Your task to perform on an android device: Clear the cart on walmart. Image 0: 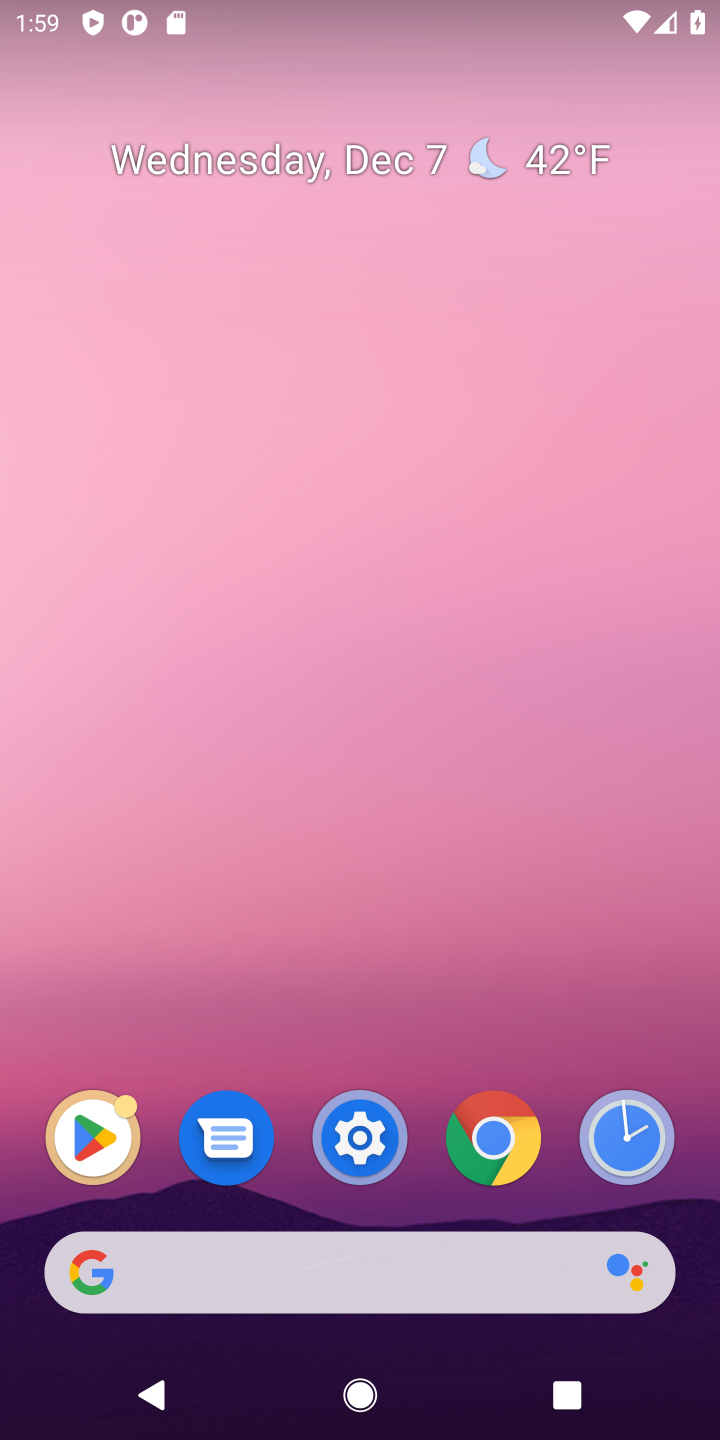
Step 0: click (501, 1265)
Your task to perform on an android device: Clear the cart on walmart. Image 1: 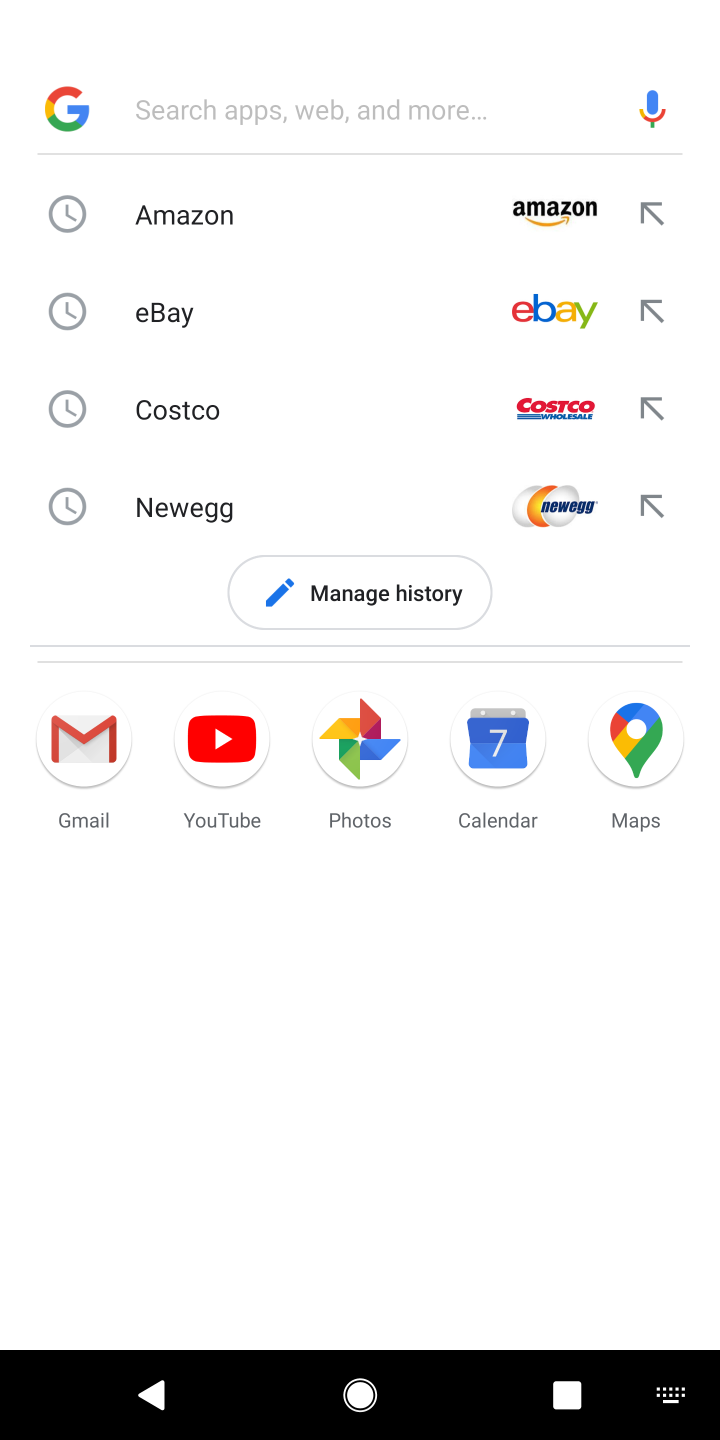
Step 1: type "walmart"
Your task to perform on an android device: Clear the cart on walmart. Image 2: 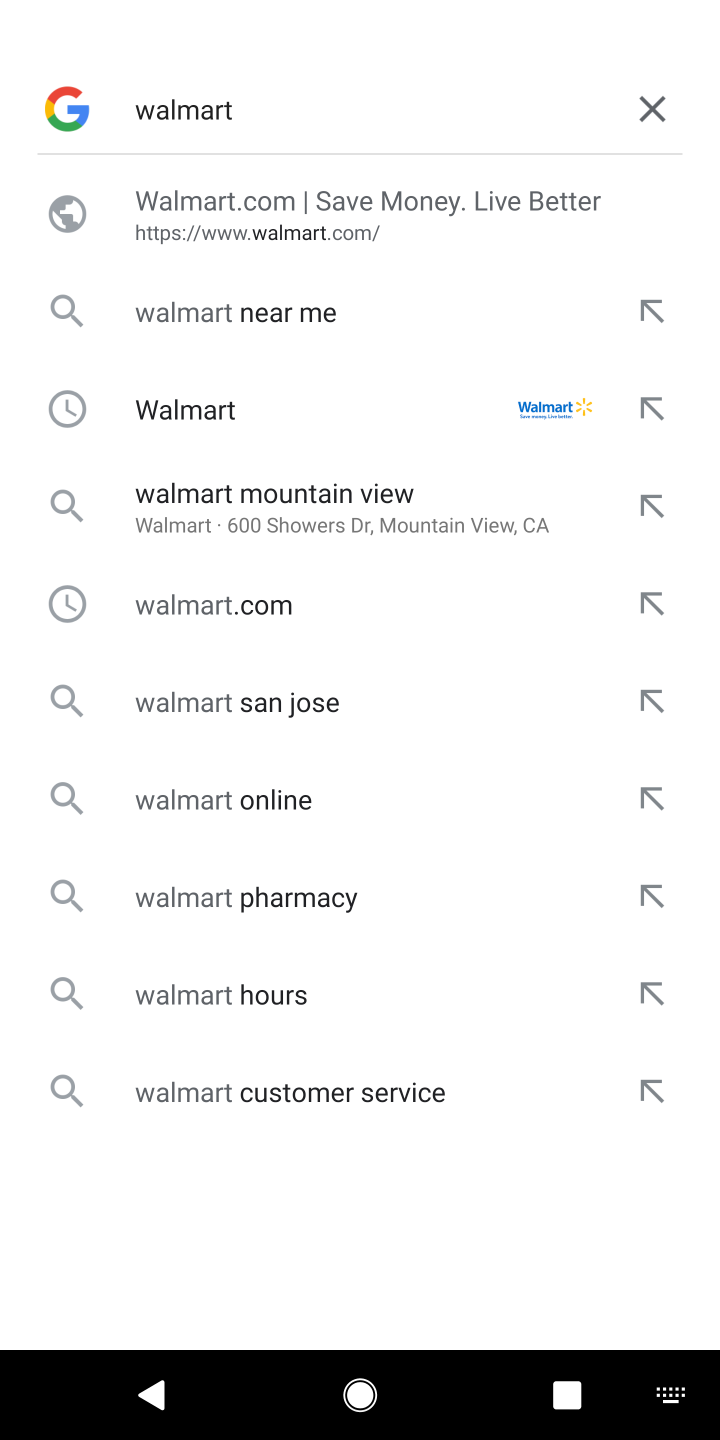
Step 2: click (178, 248)
Your task to perform on an android device: Clear the cart on walmart. Image 3: 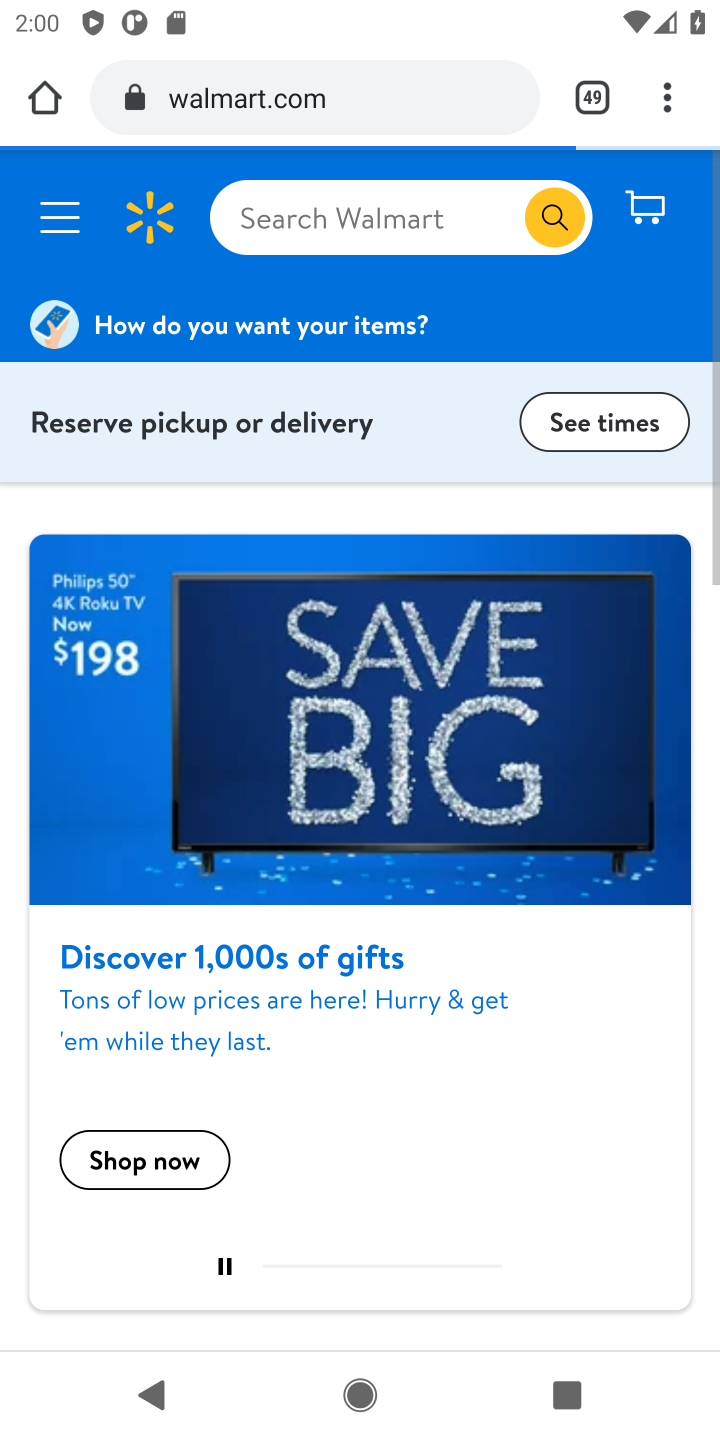
Step 3: click (381, 203)
Your task to perform on an android device: Clear the cart on walmart. Image 4: 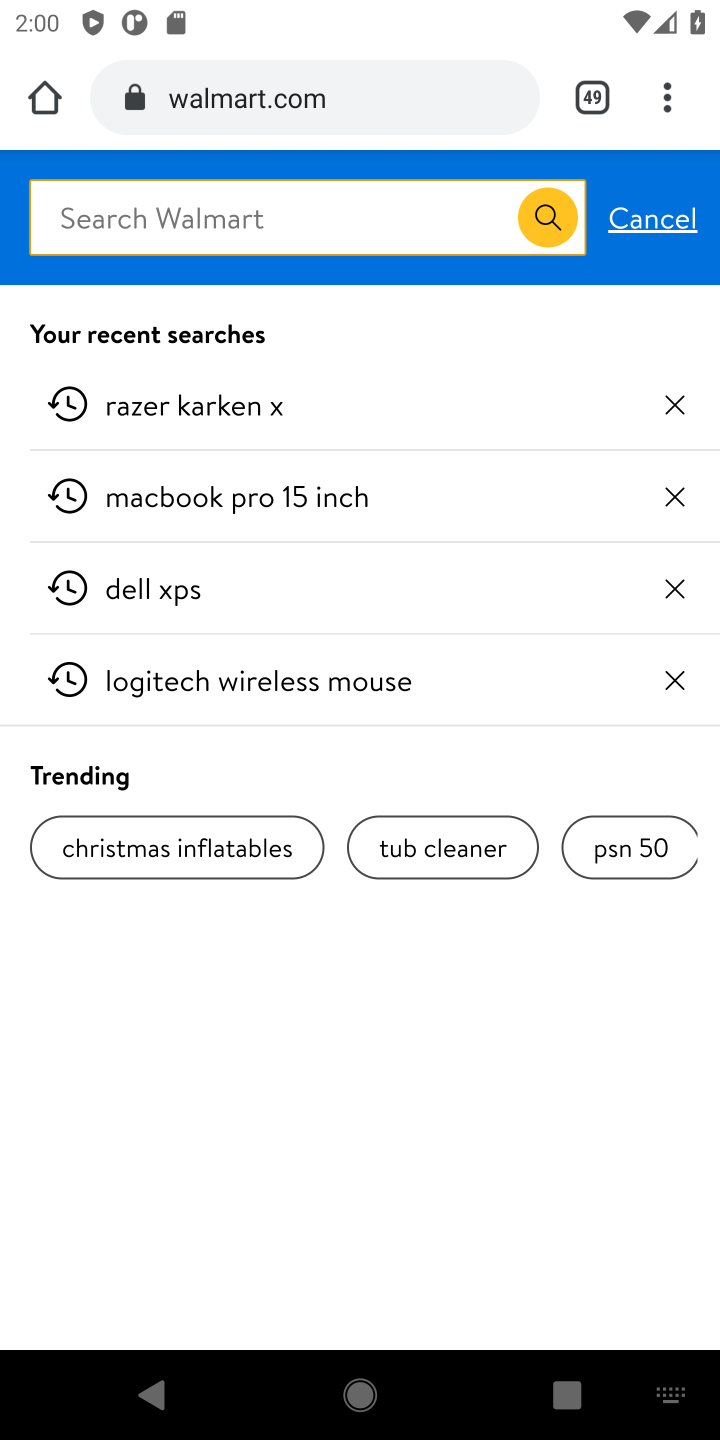
Step 4: click (642, 255)
Your task to perform on an android device: Clear the cart on walmart. Image 5: 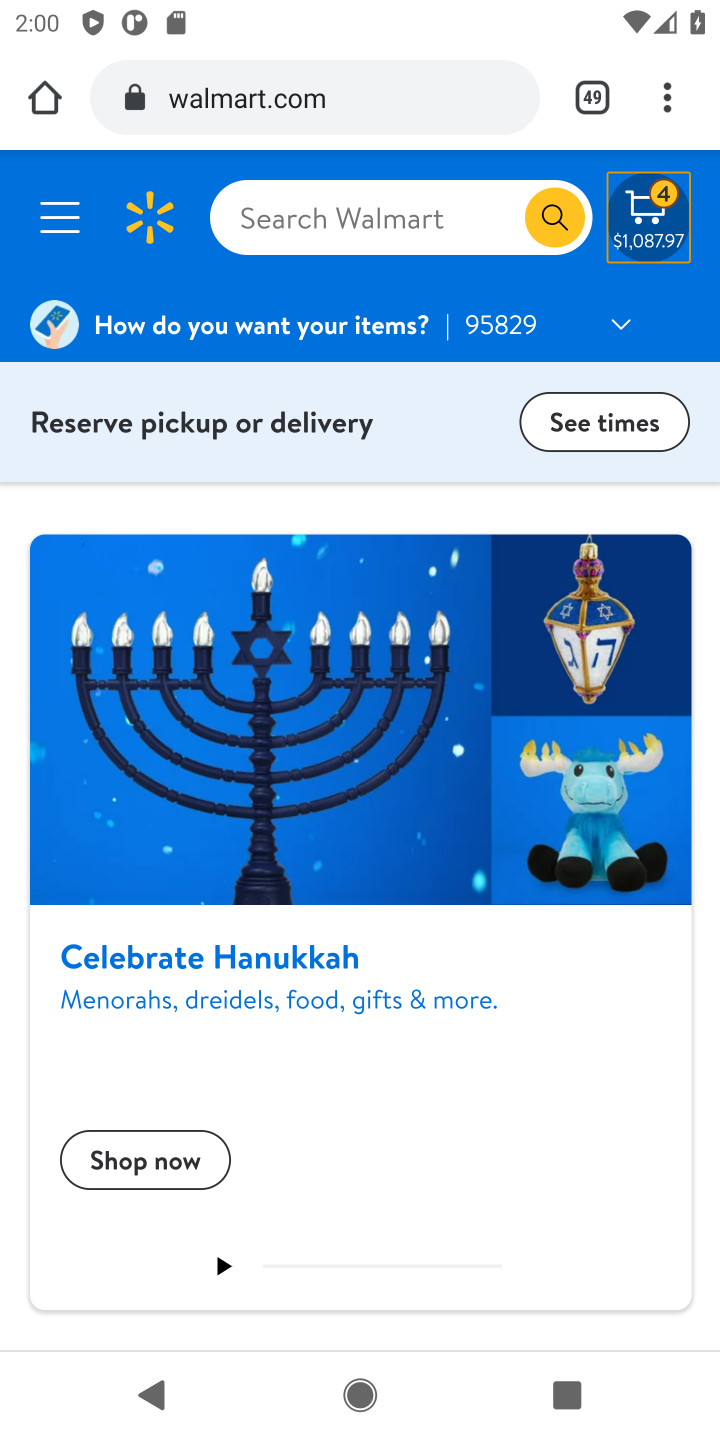
Step 5: click (642, 255)
Your task to perform on an android device: Clear the cart on walmart. Image 6: 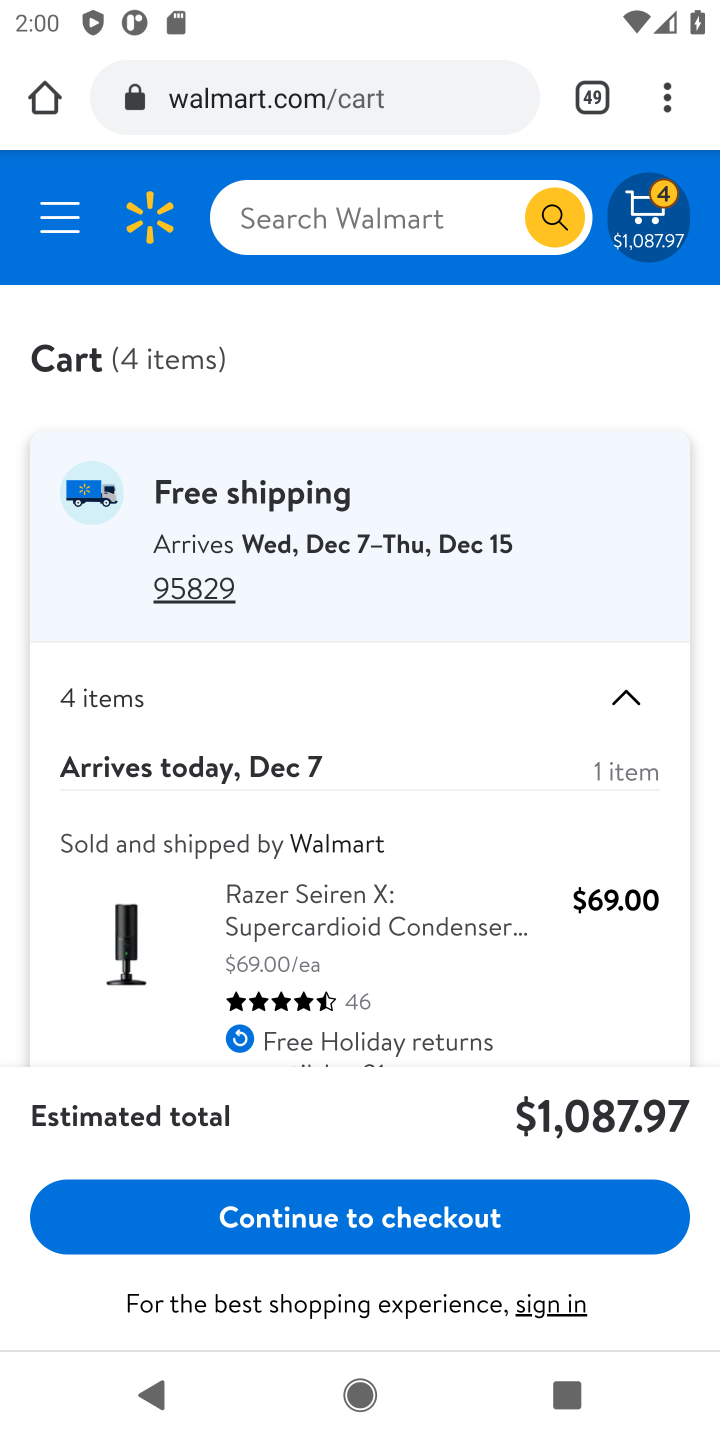
Step 6: drag from (566, 1050) to (536, 597)
Your task to perform on an android device: Clear the cart on walmart. Image 7: 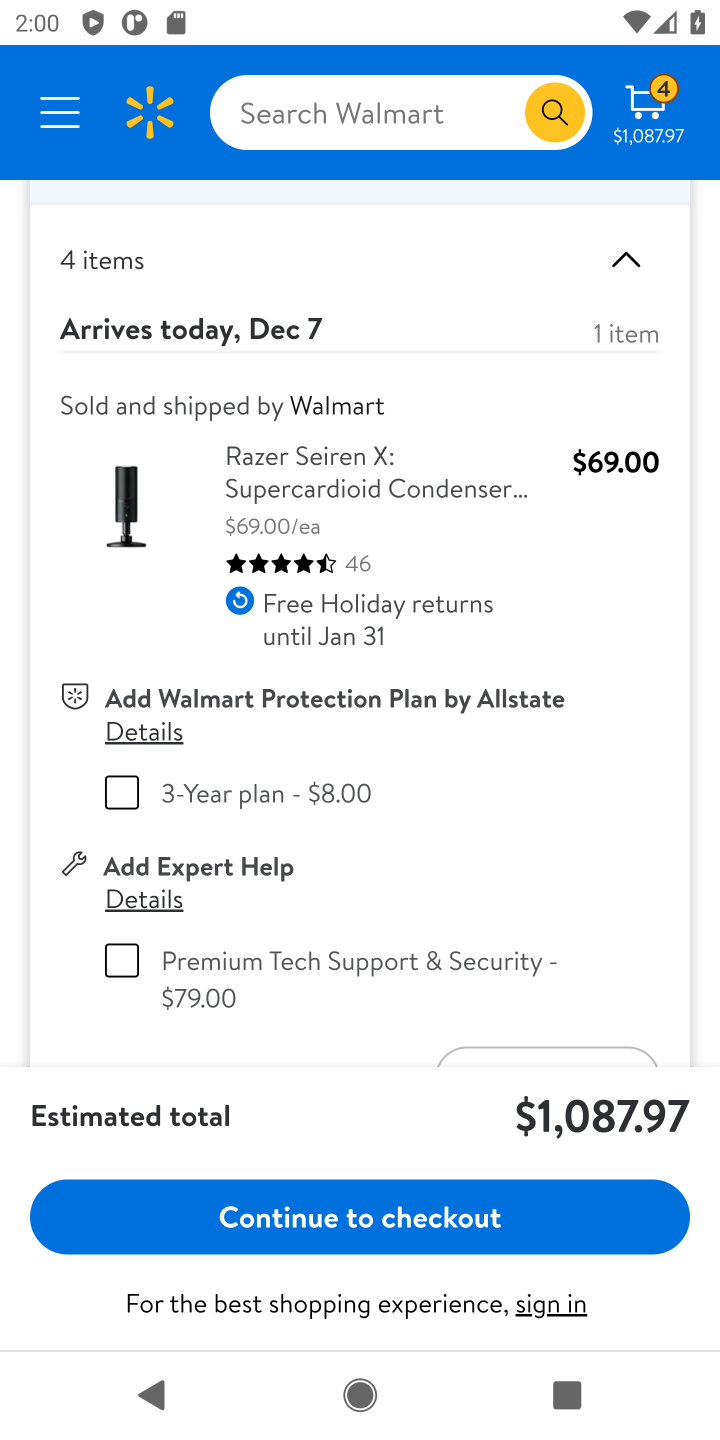
Step 7: drag from (297, 924) to (405, 375)
Your task to perform on an android device: Clear the cart on walmart. Image 8: 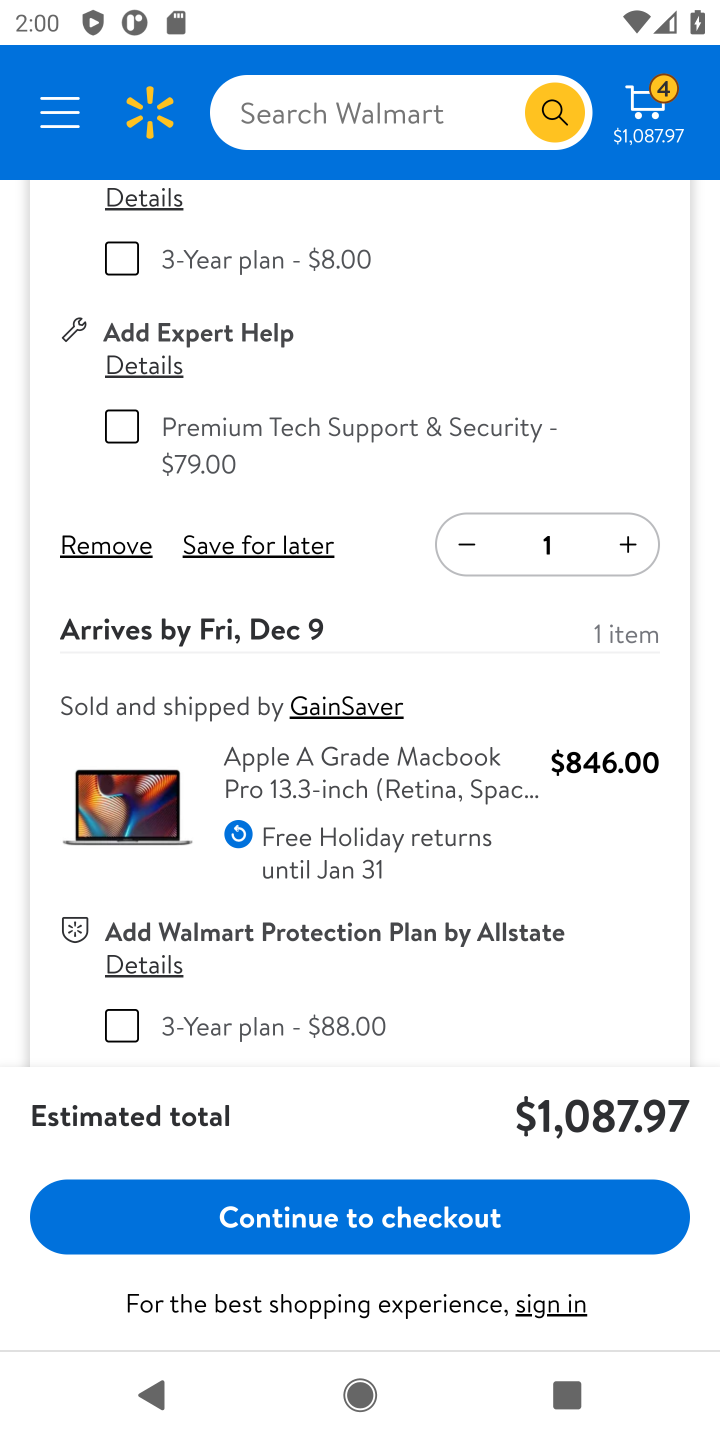
Step 8: click (92, 559)
Your task to perform on an android device: Clear the cart on walmart. Image 9: 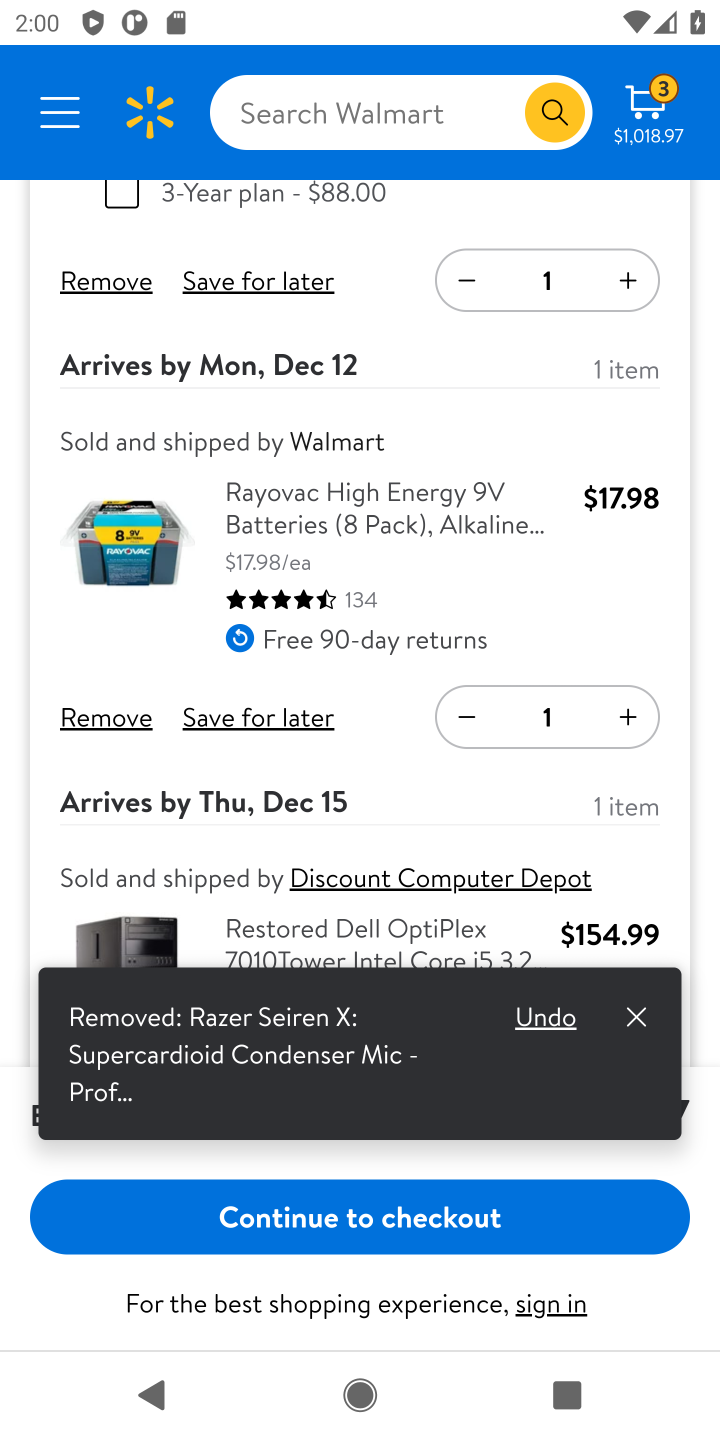
Step 9: click (140, 718)
Your task to perform on an android device: Clear the cart on walmart. Image 10: 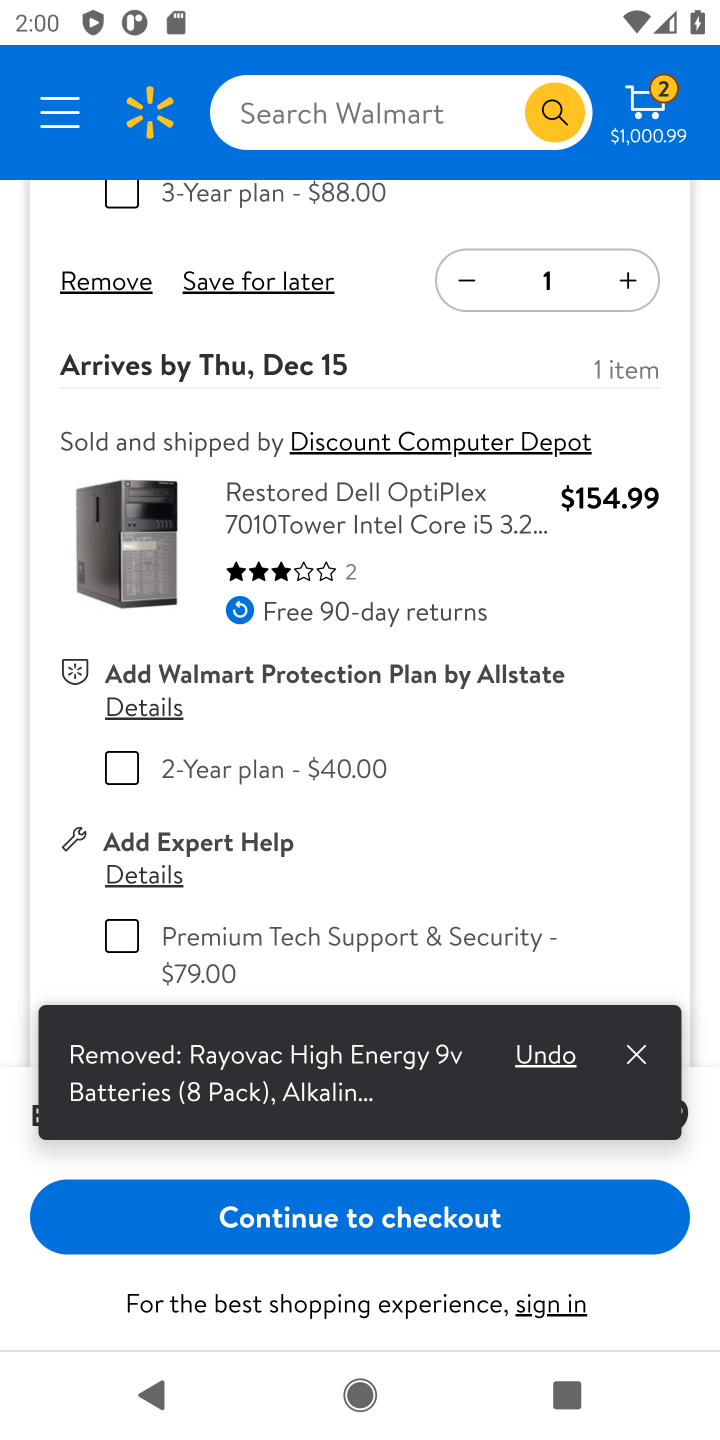
Step 10: drag from (498, 868) to (503, 786)
Your task to perform on an android device: Clear the cart on walmart. Image 11: 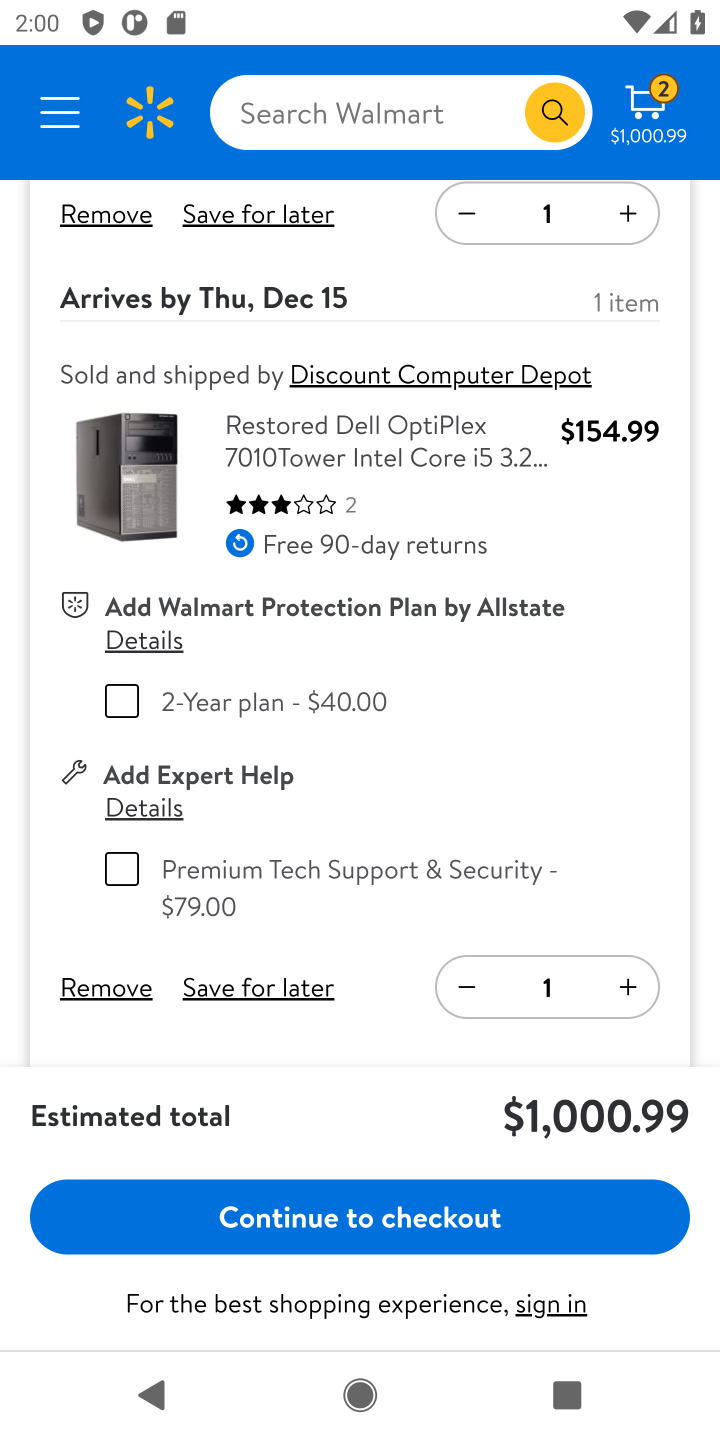
Step 11: click (110, 217)
Your task to perform on an android device: Clear the cart on walmart. Image 12: 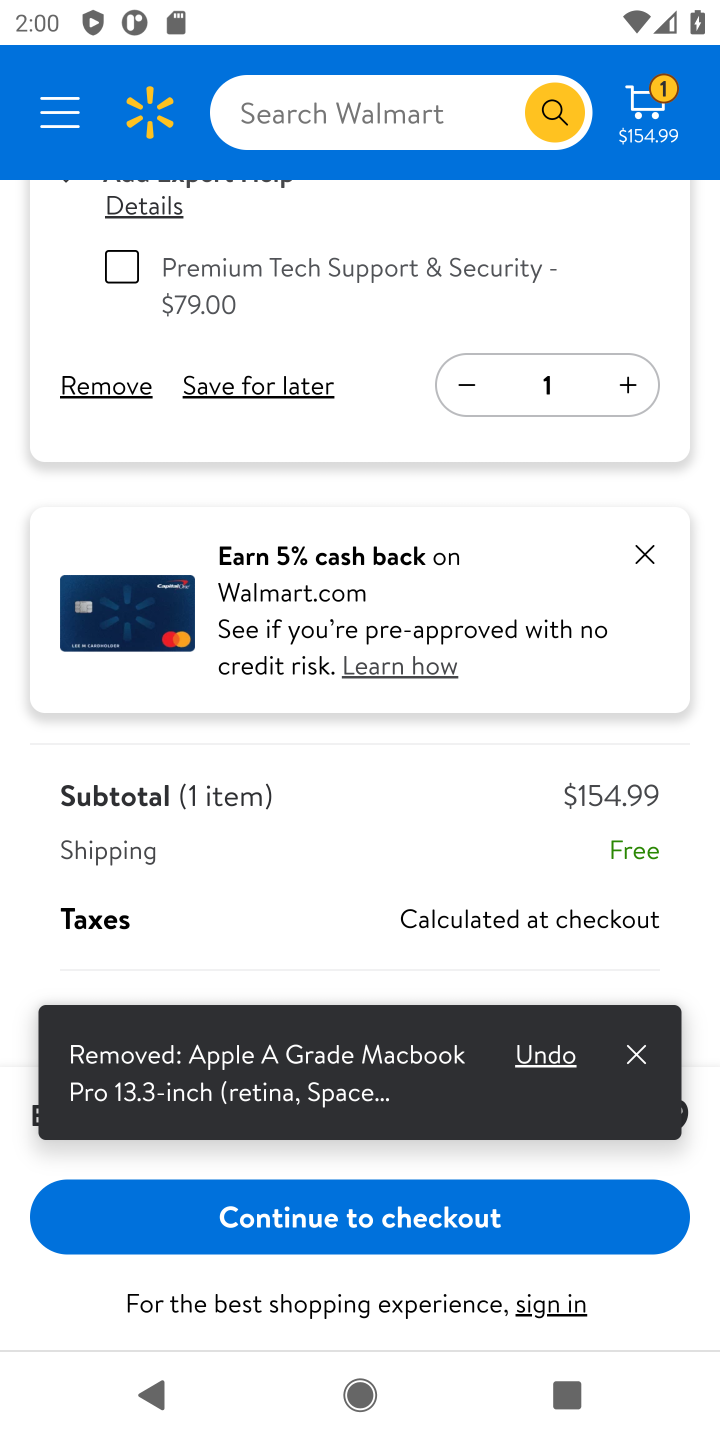
Step 12: click (133, 398)
Your task to perform on an android device: Clear the cart on walmart. Image 13: 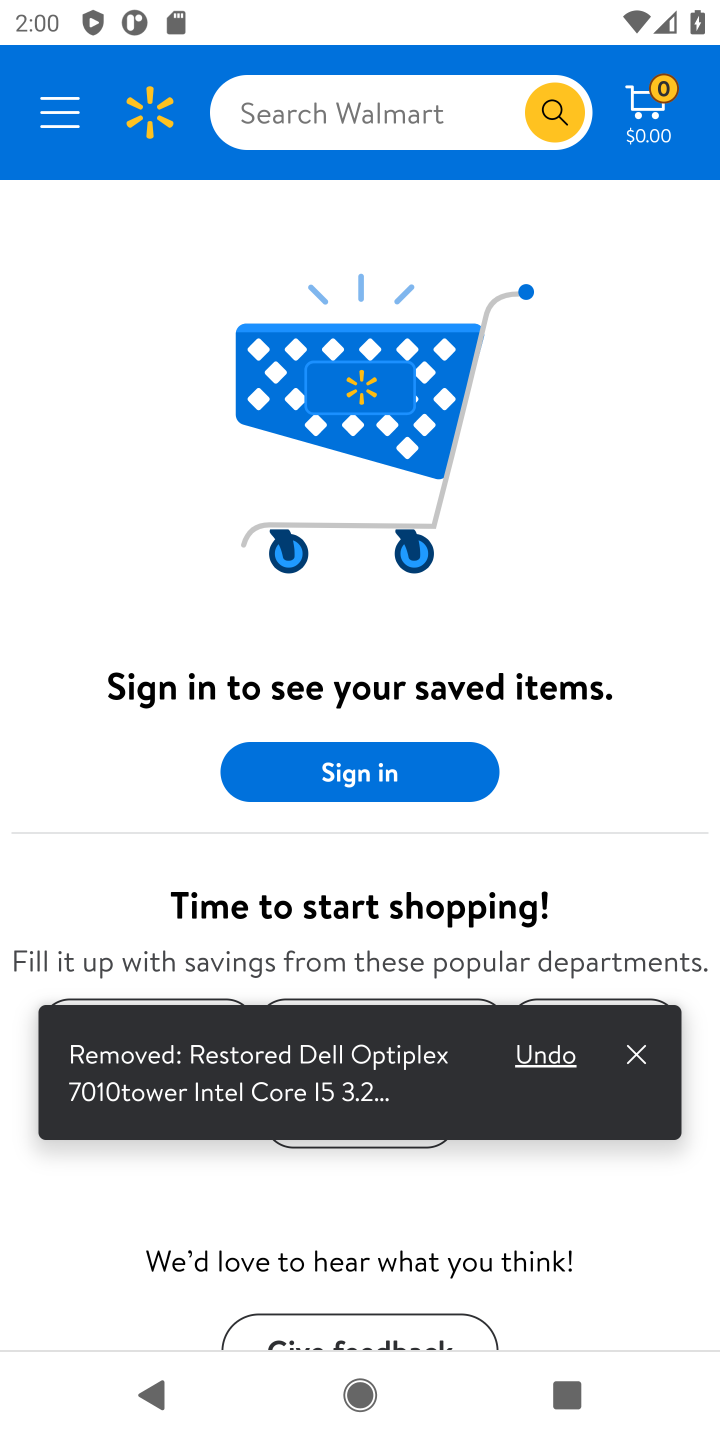
Step 13: task complete